Your task to perform on an android device: Search for vegetarian restaurants on Maps Image 0: 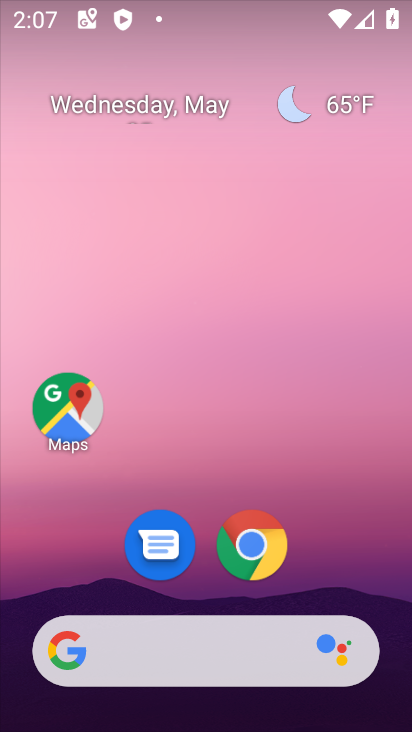
Step 0: click (75, 407)
Your task to perform on an android device: Search for vegetarian restaurants on Maps Image 1: 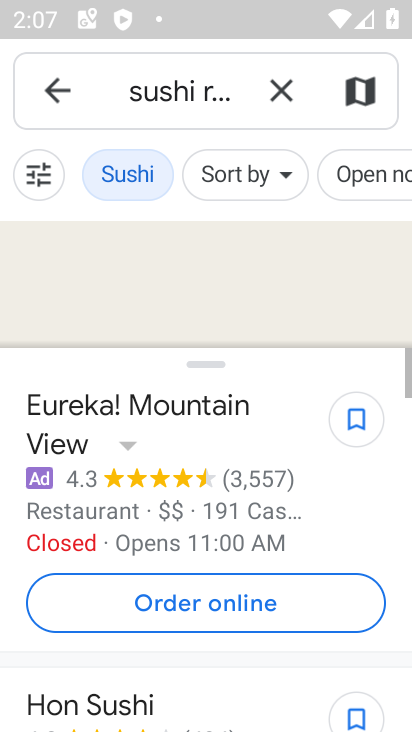
Step 1: click (287, 91)
Your task to perform on an android device: Search for vegetarian restaurants on Maps Image 2: 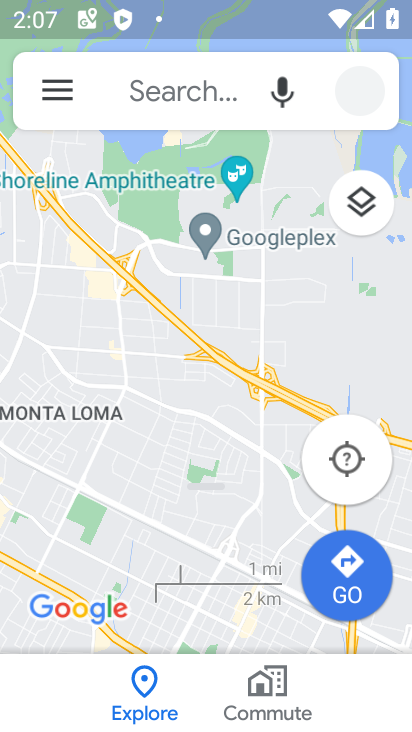
Step 2: click (191, 89)
Your task to perform on an android device: Search for vegetarian restaurants on Maps Image 3: 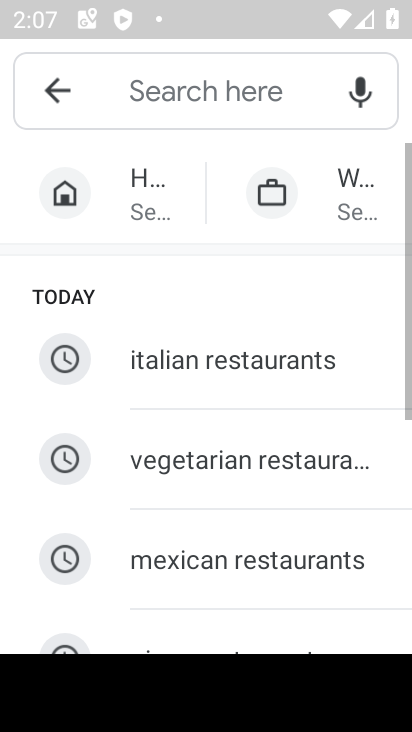
Step 3: click (248, 457)
Your task to perform on an android device: Search for vegetarian restaurants on Maps Image 4: 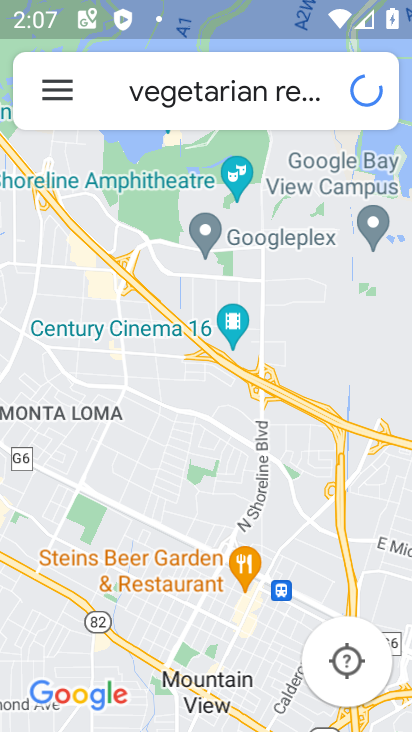
Step 4: task complete